Your task to perform on an android device: read, delete, or share a saved page in the chrome app Image 0: 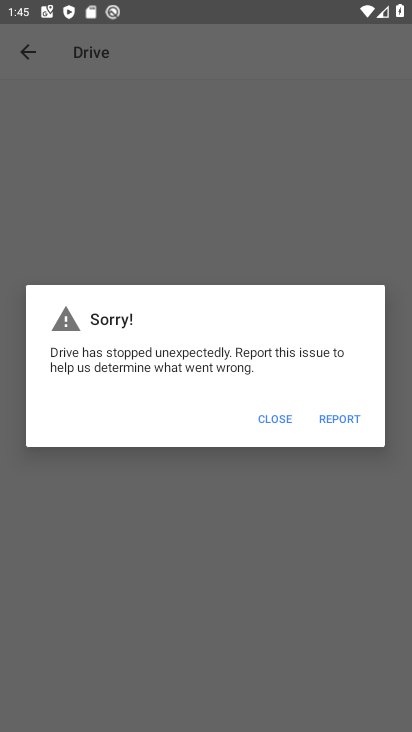
Step 0: press home button
Your task to perform on an android device: read, delete, or share a saved page in the chrome app Image 1: 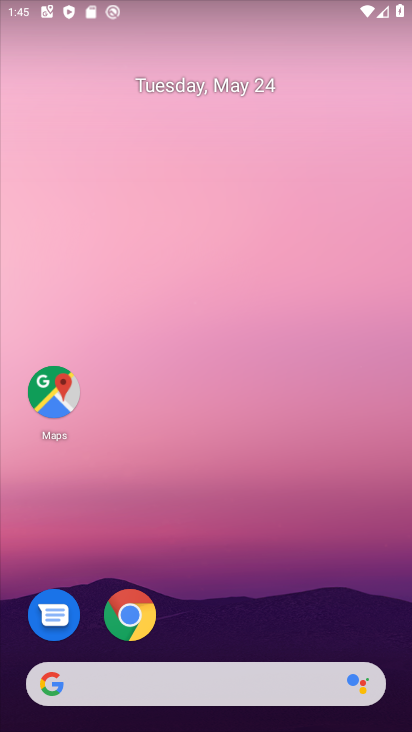
Step 1: click (118, 607)
Your task to perform on an android device: read, delete, or share a saved page in the chrome app Image 2: 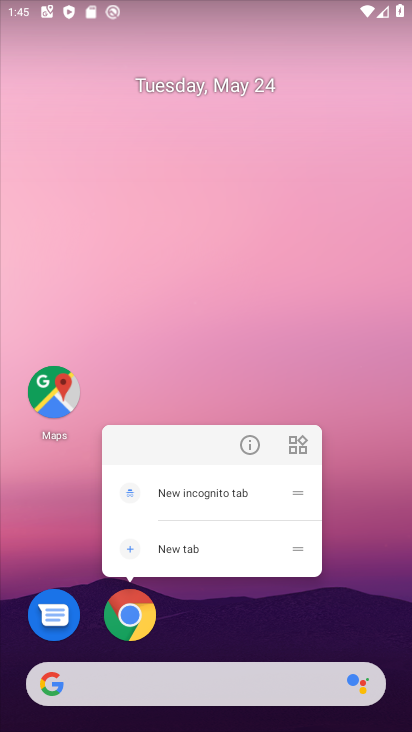
Step 2: click (118, 607)
Your task to perform on an android device: read, delete, or share a saved page in the chrome app Image 3: 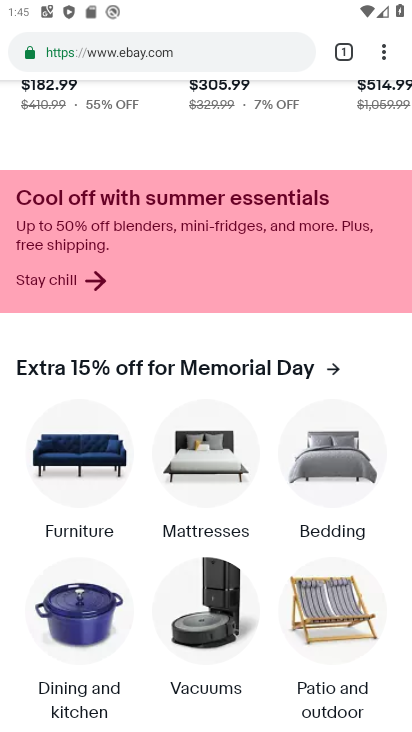
Step 3: press home button
Your task to perform on an android device: read, delete, or share a saved page in the chrome app Image 4: 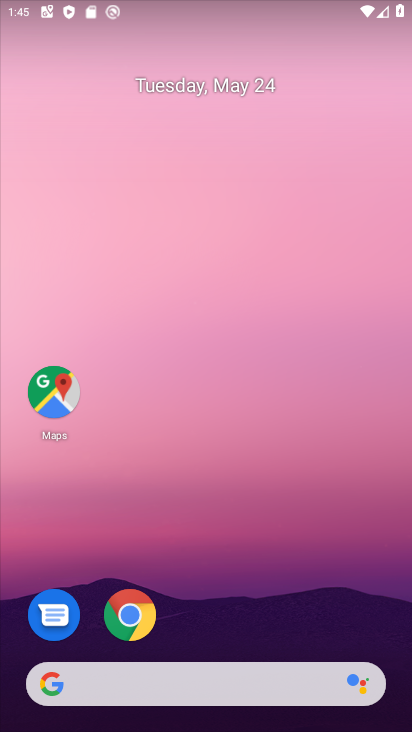
Step 4: click (125, 608)
Your task to perform on an android device: read, delete, or share a saved page in the chrome app Image 5: 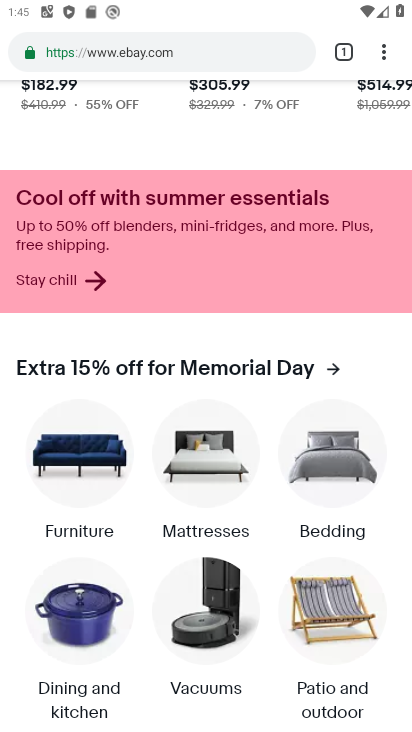
Step 5: click (384, 48)
Your task to perform on an android device: read, delete, or share a saved page in the chrome app Image 6: 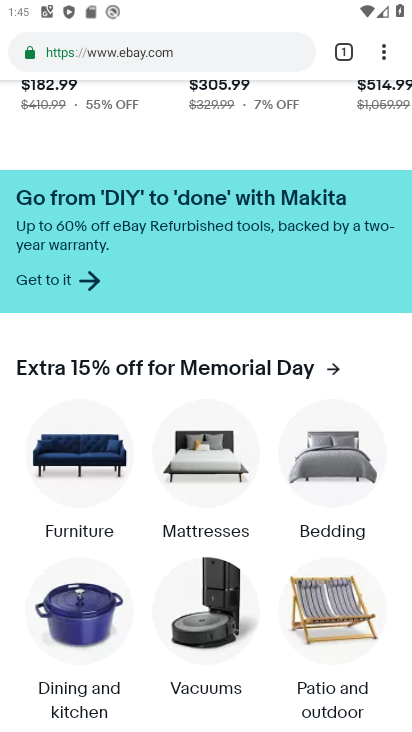
Step 6: click (388, 49)
Your task to perform on an android device: read, delete, or share a saved page in the chrome app Image 7: 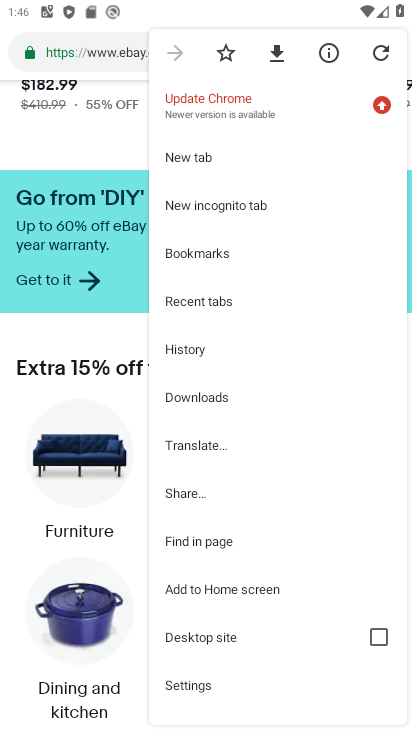
Step 7: click (237, 391)
Your task to perform on an android device: read, delete, or share a saved page in the chrome app Image 8: 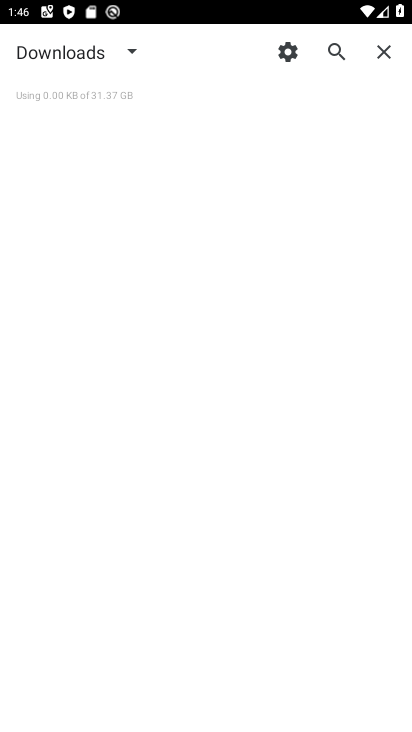
Step 8: task complete